Your task to perform on an android device: visit the assistant section in the google photos Image 0: 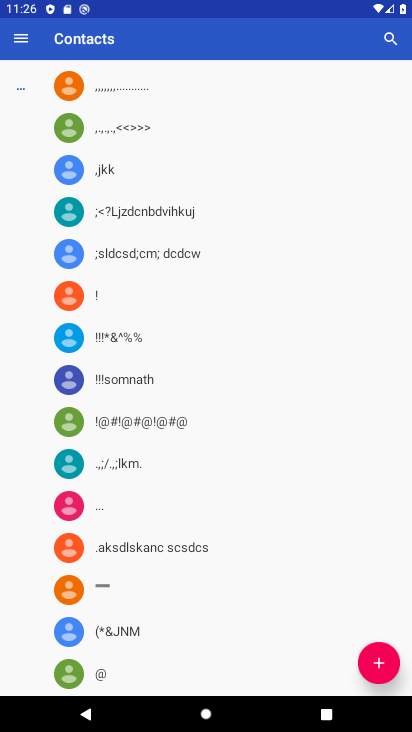
Step 0: press home button
Your task to perform on an android device: visit the assistant section in the google photos Image 1: 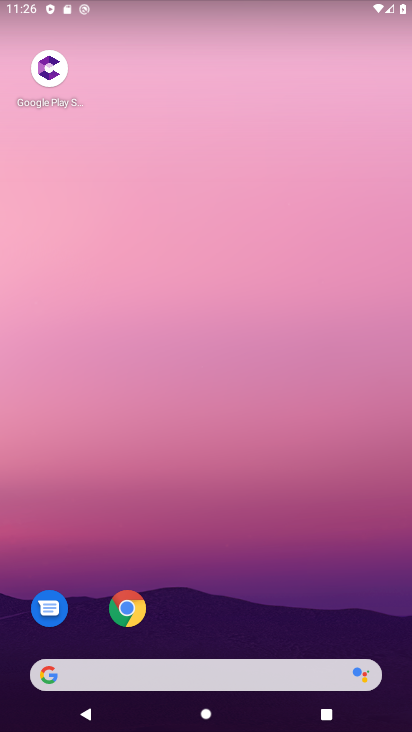
Step 1: drag from (359, 612) to (278, 169)
Your task to perform on an android device: visit the assistant section in the google photos Image 2: 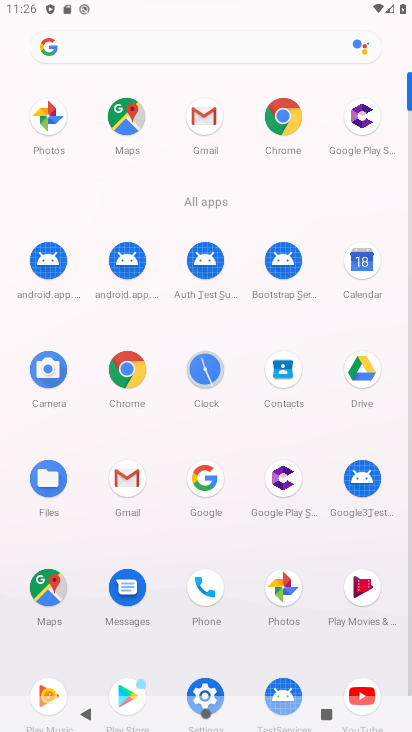
Step 2: click (49, 117)
Your task to perform on an android device: visit the assistant section in the google photos Image 3: 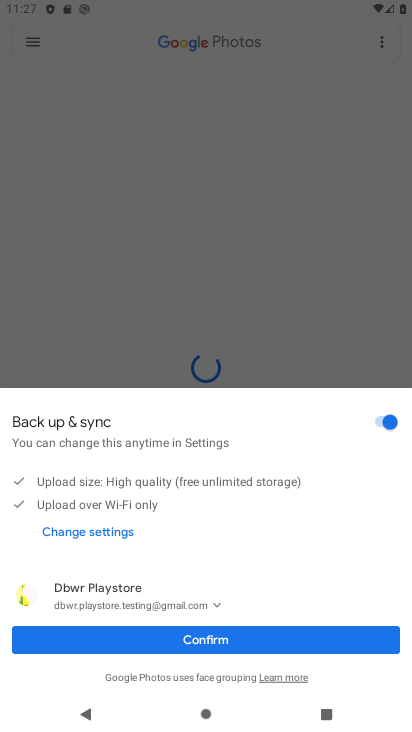
Step 3: click (258, 636)
Your task to perform on an android device: visit the assistant section in the google photos Image 4: 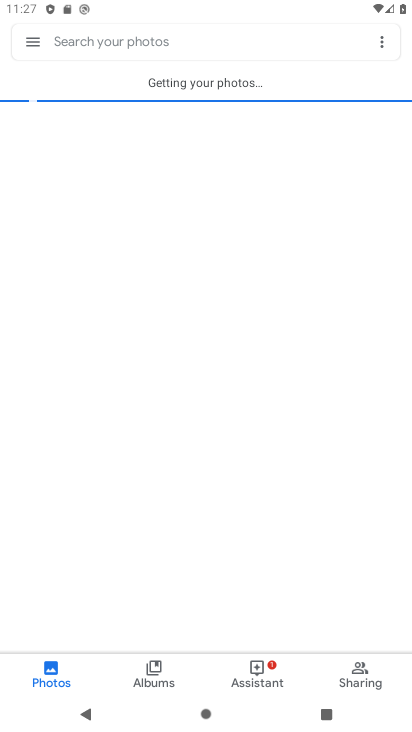
Step 4: click (262, 677)
Your task to perform on an android device: visit the assistant section in the google photos Image 5: 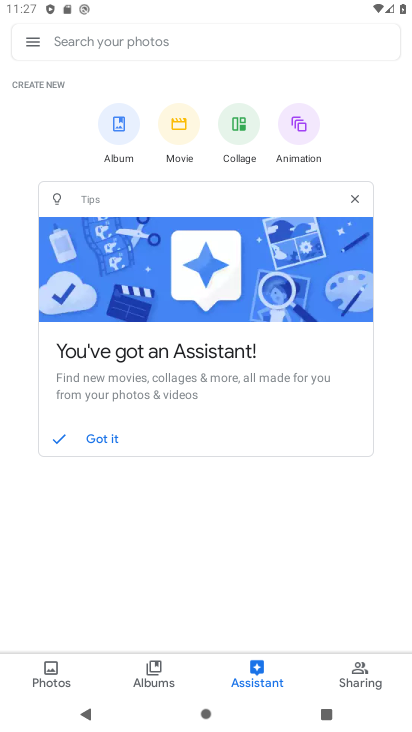
Step 5: task complete